Your task to perform on an android device: delete browsing data in the chrome app Image 0: 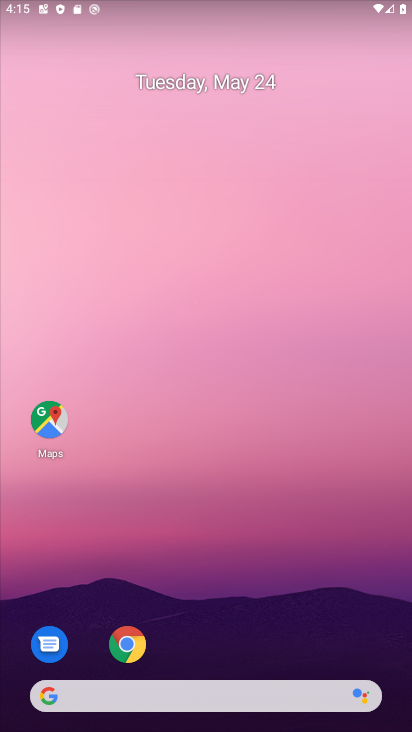
Step 0: drag from (87, 159) to (74, 68)
Your task to perform on an android device: delete browsing data in the chrome app Image 1: 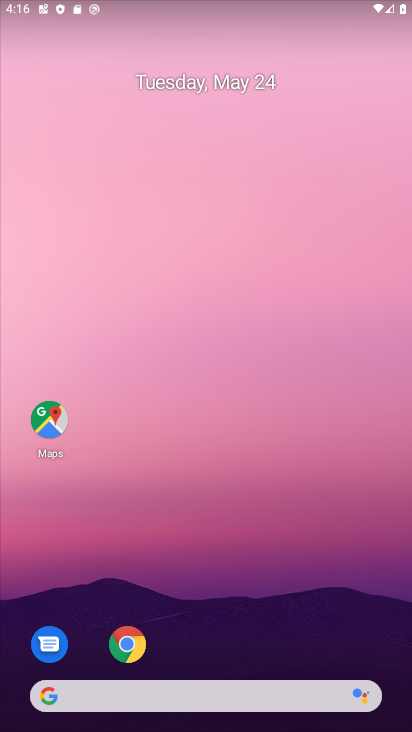
Step 1: drag from (288, 674) to (199, 83)
Your task to perform on an android device: delete browsing data in the chrome app Image 2: 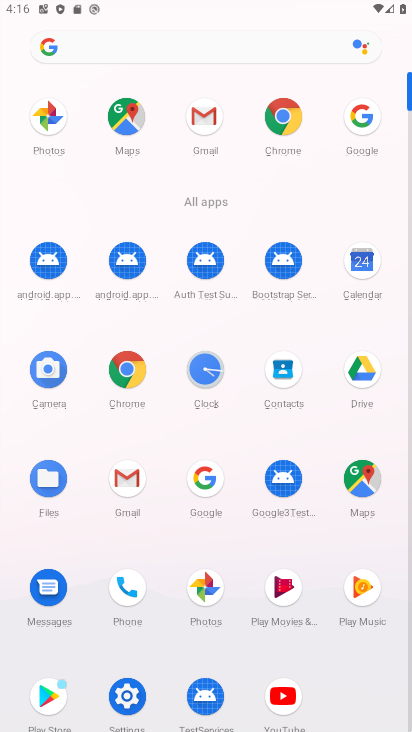
Step 2: click (293, 107)
Your task to perform on an android device: delete browsing data in the chrome app Image 3: 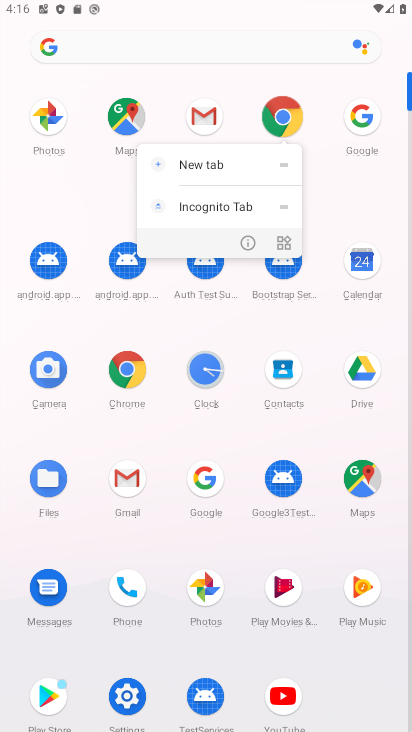
Step 3: click (290, 115)
Your task to perform on an android device: delete browsing data in the chrome app Image 4: 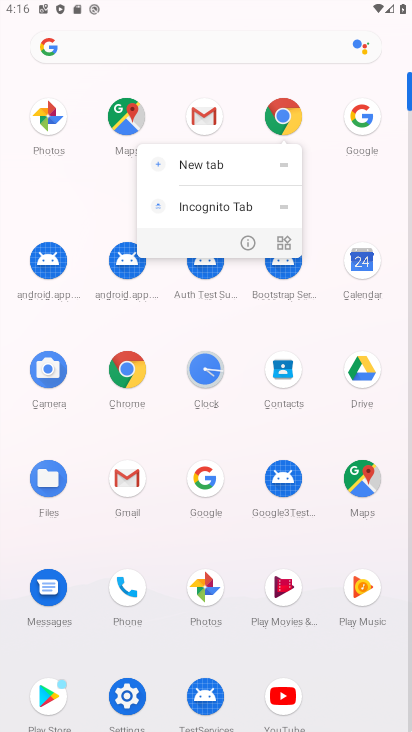
Step 4: click (290, 117)
Your task to perform on an android device: delete browsing data in the chrome app Image 5: 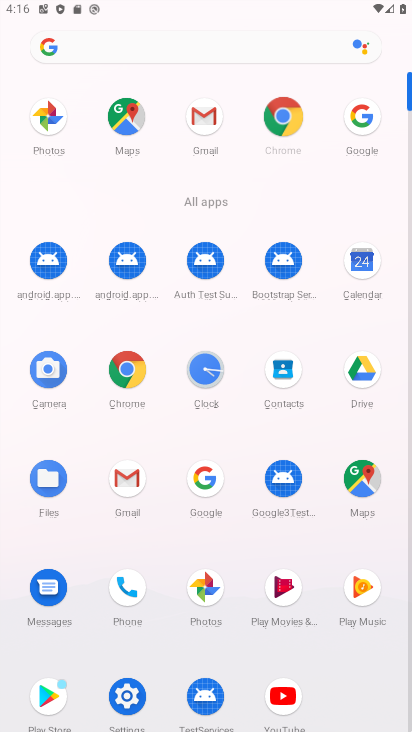
Step 5: click (290, 117)
Your task to perform on an android device: delete browsing data in the chrome app Image 6: 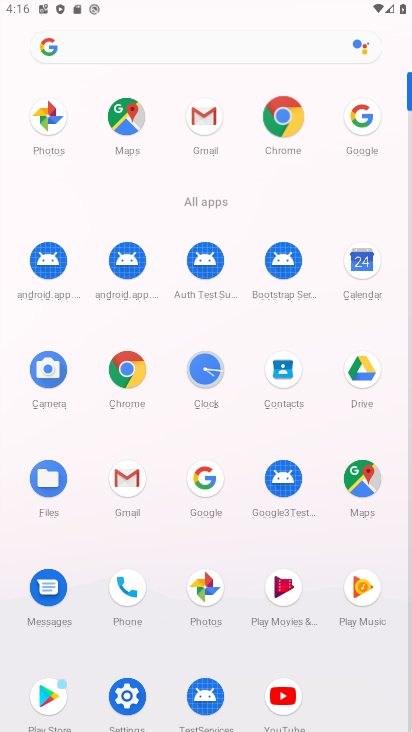
Step 6: click (290, 117)
Your task to perform on an android device: delete browsing data in the chrome app Image 7: 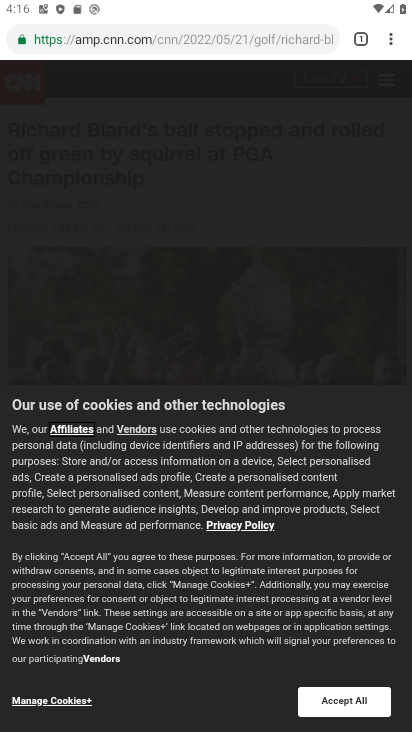
Step 7: drag from (388, 39) to (258, 222)
Your task to perform on an android device: delete browsing data in the chrome app Image 8: 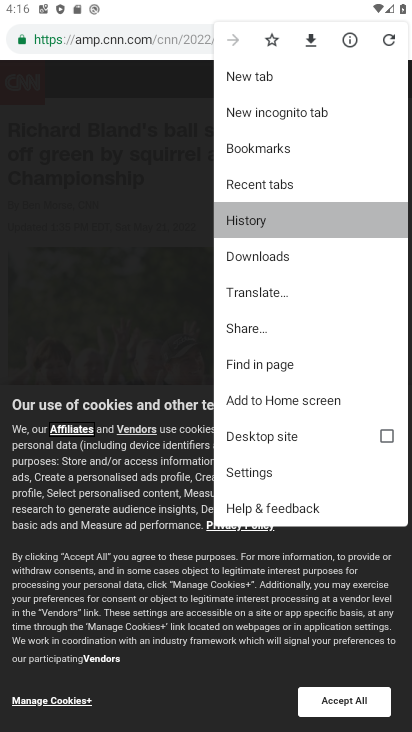
Step 8: click (264, 220)
Your task to perform on an android device: delete browsing data in the chrome app Image 9: 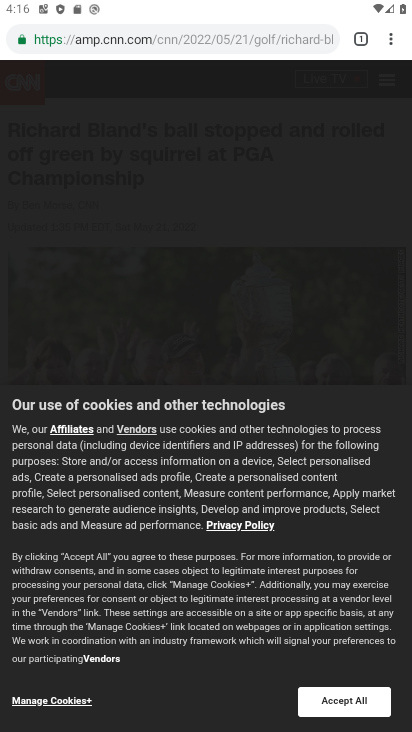
Step 9: click (269, 214)
Your task to perform on an android device: delete browsing data in the chrome app Image 10: 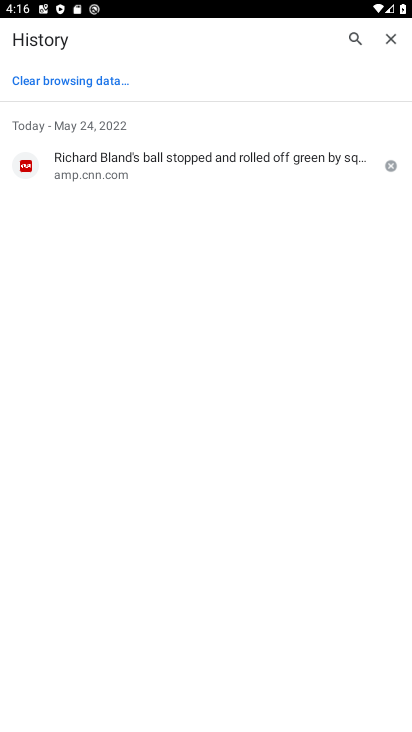
Step 10: click (81, 76)
Your task to perform on an android device: delete browsing data in the chrome app Image 11: 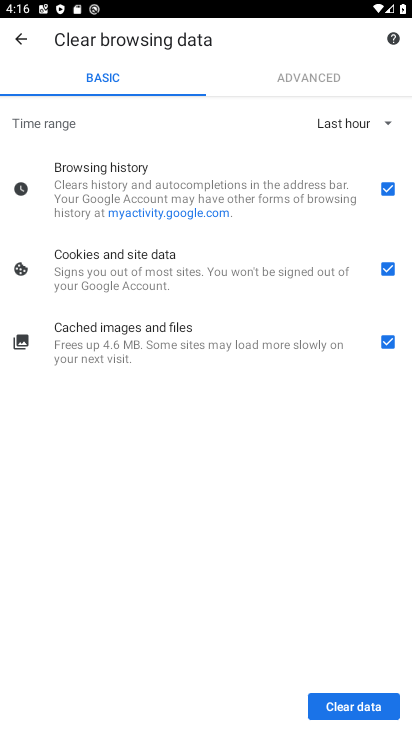
Step 11: click (358, 700)
Your task to perform on an android device: delete browsing data in the chrome app Image 12: 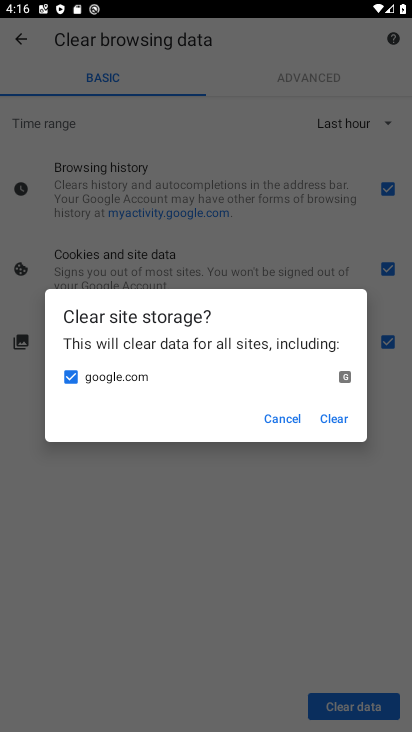
Step 12: click (341, 419)
Your task to perform on an android device: delete browsing data in the chrome app Image 13: 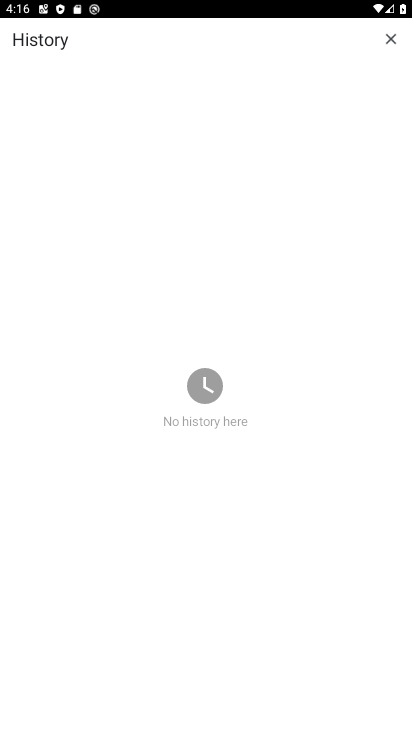
Step 13: task complete